Your task to perform on an android device: Open calendar and show me the second week of next month Image 0: 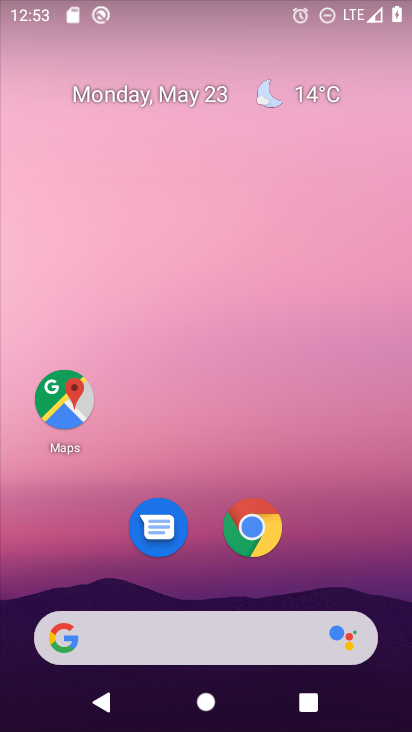
Step 0: drag from (373, 593) to (344, 284)
Your task to perform on an android device: Open calendar and show me the second week of next month Image 1: 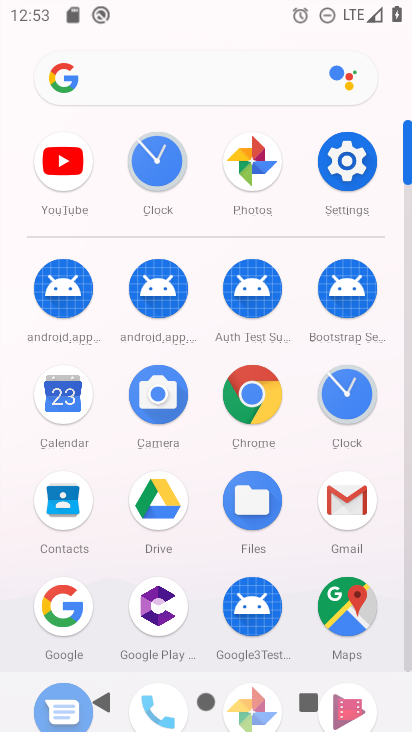
Step 1: click (70, 434)
Your task to perform on an android device: Open calendar and show me the second week of next month Image 2: 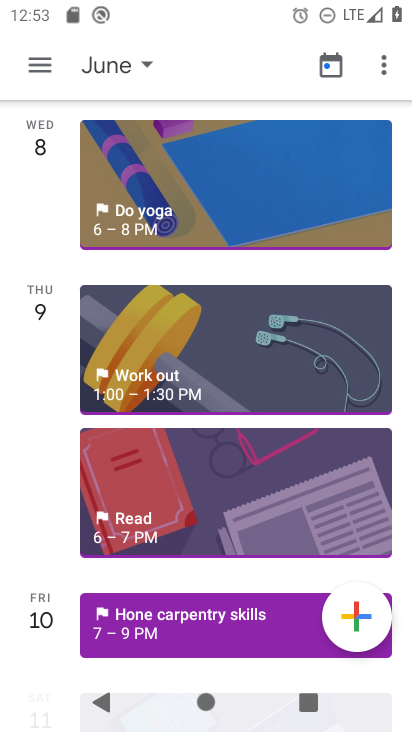
Step 2: task complete